Your task to perform on an android device: Go to notification settings Image 0: 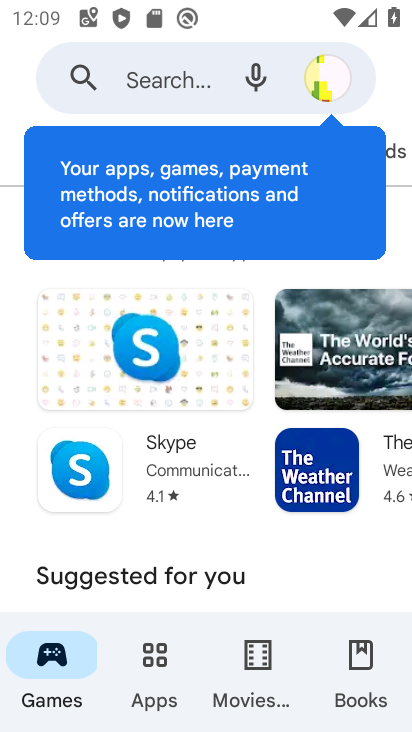
Step 0: press back button
Your task to perform on an android device: Go to notification settings Image 1: 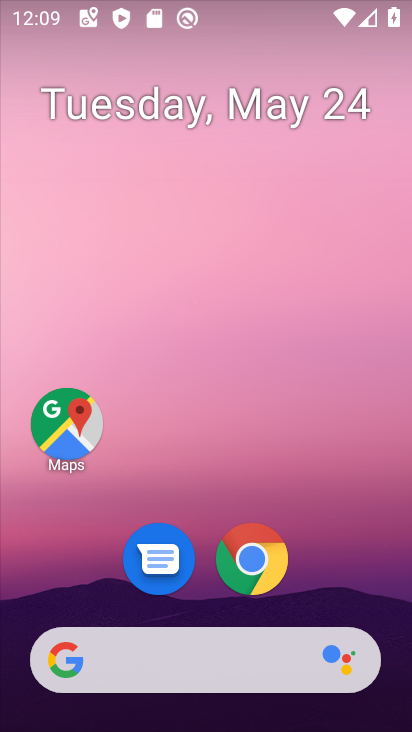
Step 1: drag from (247, 677) to (155, 108)
Your task to perform on an android device: Go to notification settings Image 2: 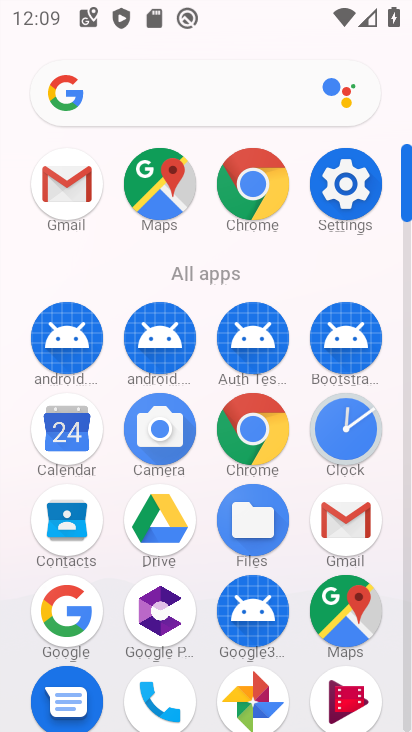
Step 2: click (353, 184)
Your task to perform on an android device: Go to notification settings Image 3: 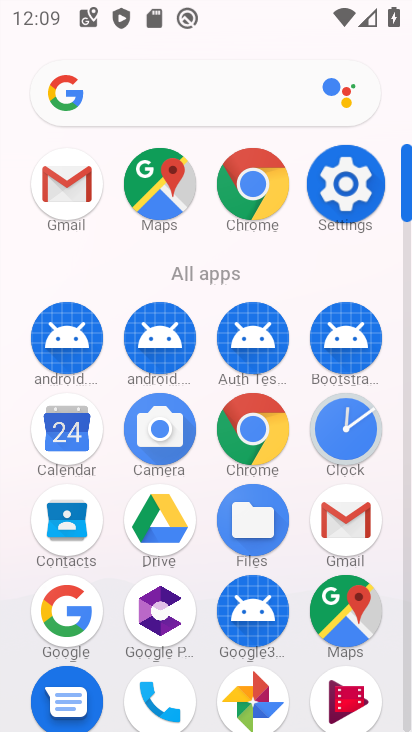
Step 3: click (353, 184)
Your task to perform on an android device: Go to notification settings Image 4: 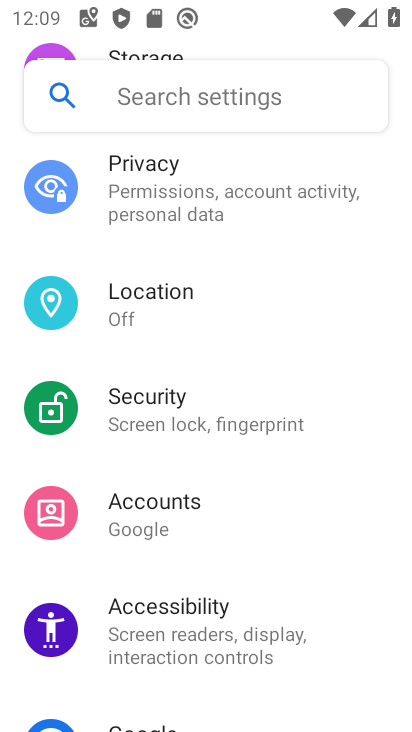
Step 4: drag from (212, 584) to (163, 147)
Your task to perform on an android device: Go to notification settings Image 5: 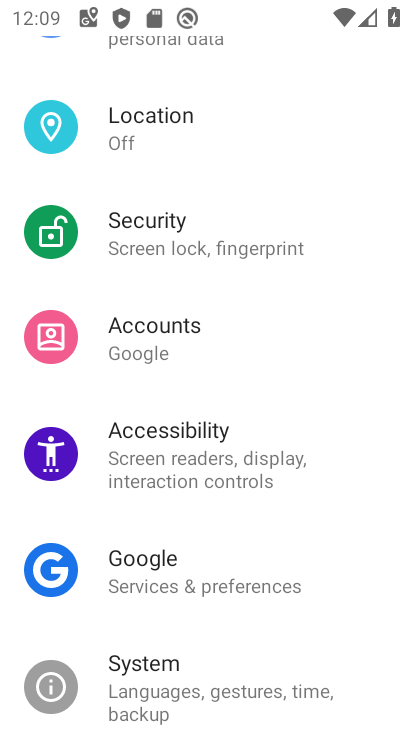
Step 5: drag from (174, 439) to (168, 134)
Your task to perform on an android device: Go to notification settings Image 6: 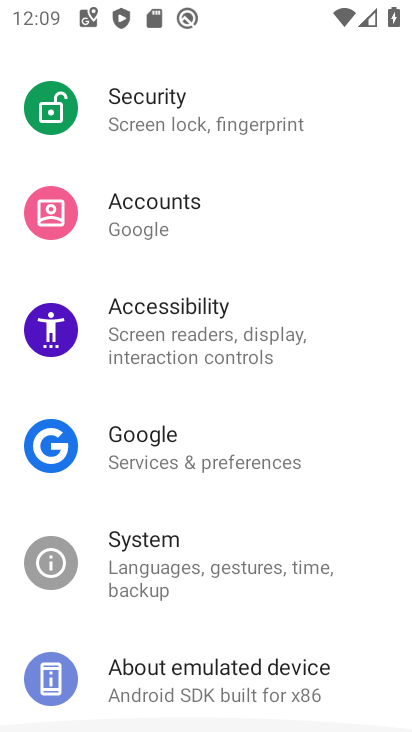
Step 6: drag from (223, 493) to (251, 94)
Your task to perform on an android device: Go to notification settings Image 7: 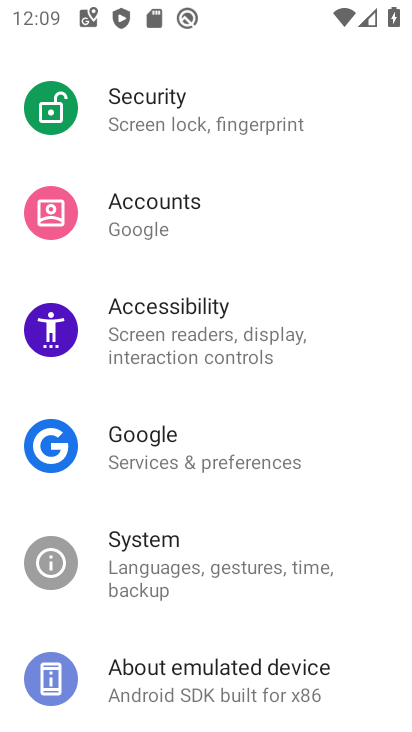
Step 7: drag from (173, 275) to (209, 567)
Your task to perform on an android device: Go to notification settings Image 8: 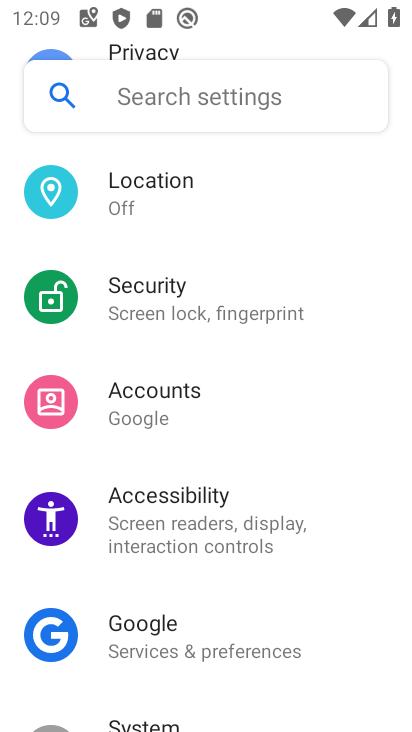
Step 8: drag from (206, 204) to (207, 612)
Your task to perform on an android device: Go to notification settings Image 9: 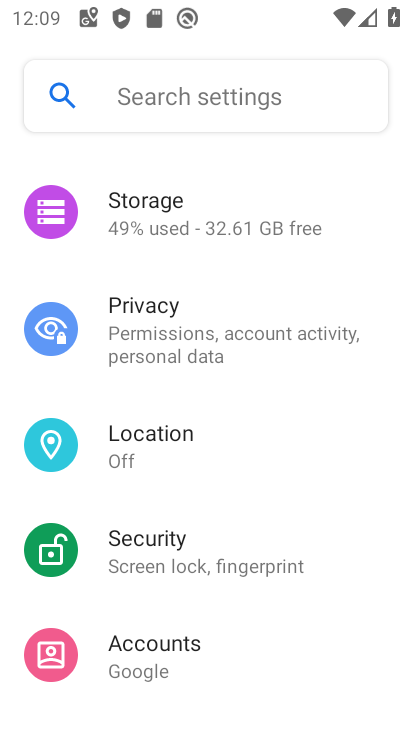
Step 9: drag from (143, 303) to (299, 637)
Your task to perform on an android device: Go to notification settings Image 10: 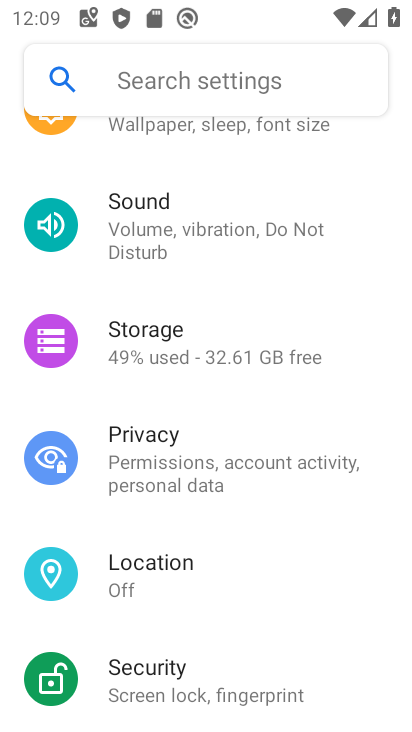
Step 10: drag from (312, 265) to (332, 722)
Your task to perform on an android device: Go to notification settings Image 11: 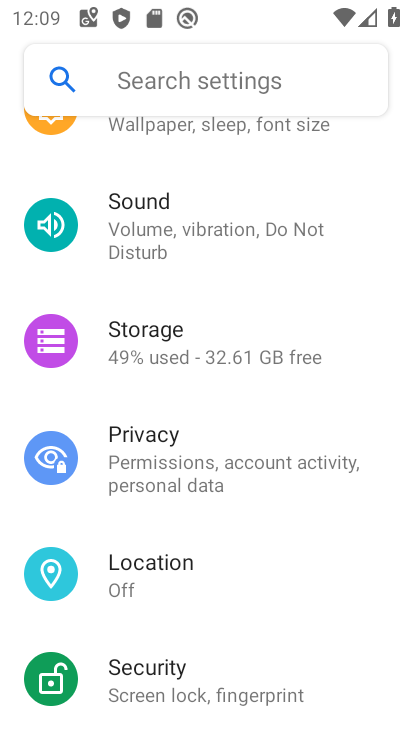
Step 11: drag from (191, 443) to (178, 687)
Your task to perform on an android device: Go to notification settings Image 12: 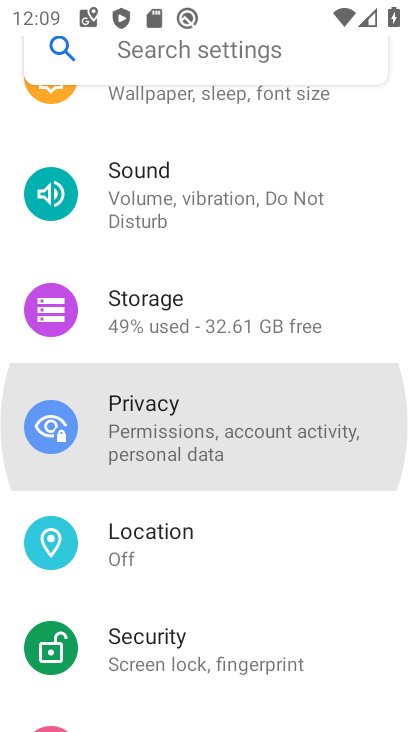
Step 12: drag from (148, 316) to (198, 700)
Your task to perform on an android device: Go to notification settings Image 13: 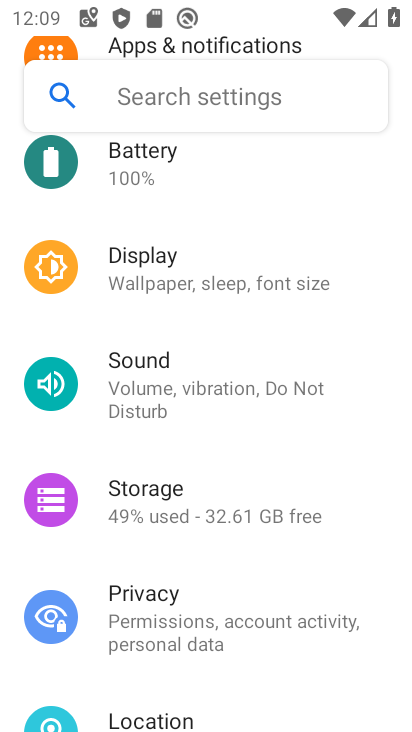
Step 13: drag from (219, 286) to (185, 652)
Your task to perform on an android device: Go to notification settings Image 14: 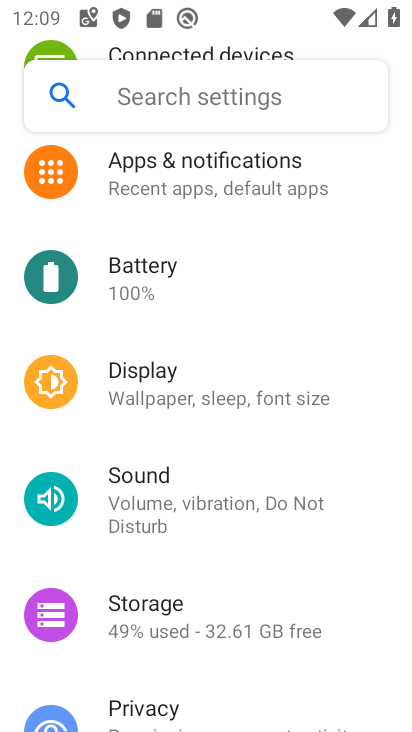
Step 14: drag from (253, 184) to (253, 705)
Your task to perform on an android device: Go to notification settings Image 15: 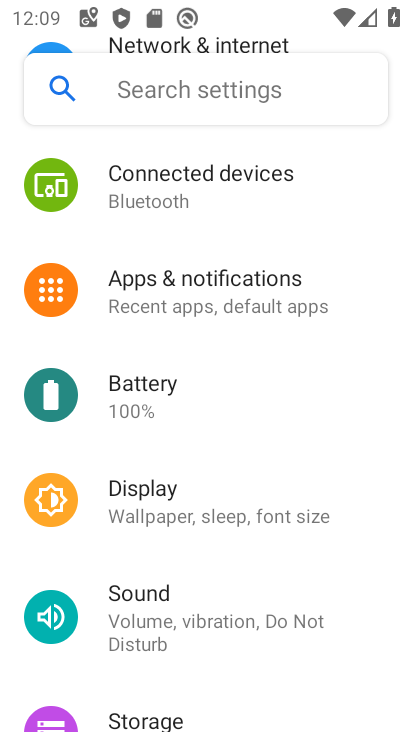
Step 15: click (188, 301)
Your task to perform on an android device: Go to notification settings Image 16: 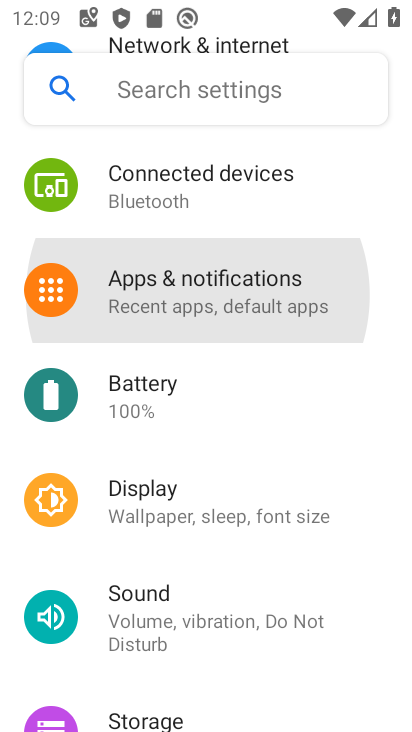
Step 16: click (188, 301)
Your task to perform on an android device: Go to notification settings Image 17: 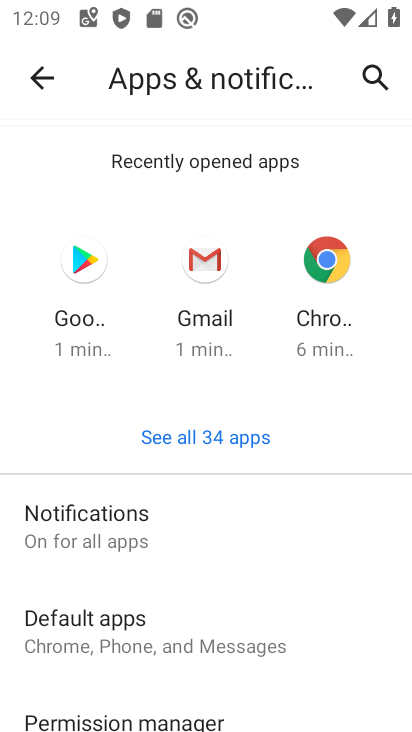
Step 17: click (90, 512)
Your task to perform on an android device: Go to notification settings Image 18: 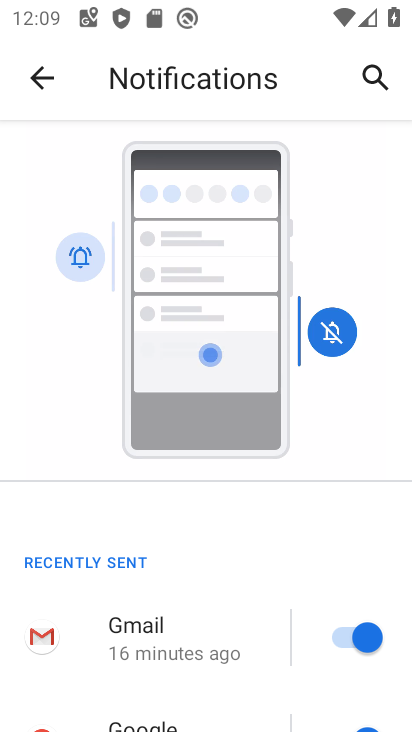
Step 18: task complete